Your task to perform on an android device: open app "AliExpress" (install if not already installed) Image 0: 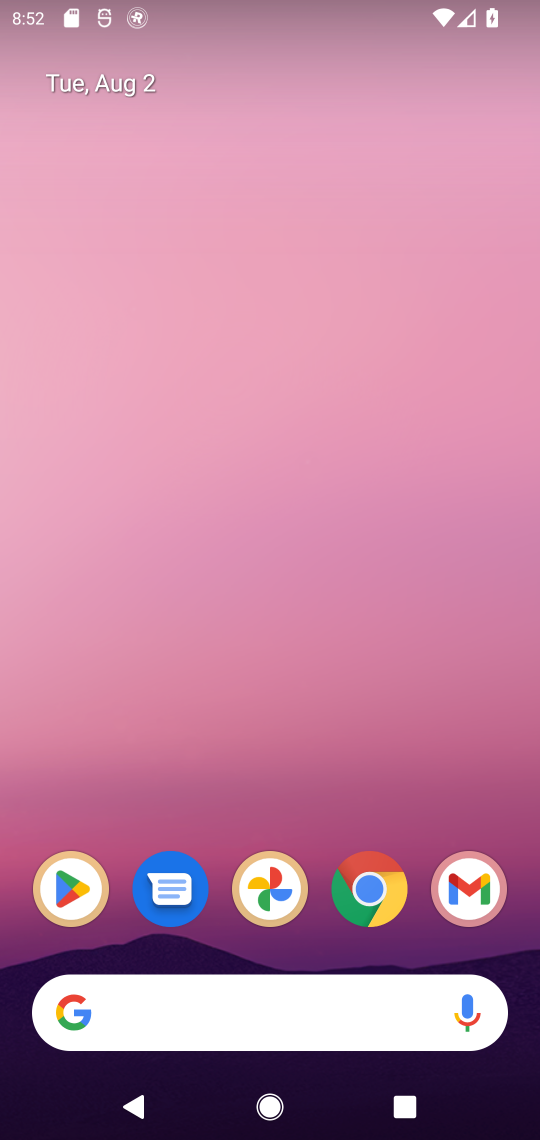
Step 0: press home button
Your task to perform on an android device: open app "AliExpress" (install if not already installed) Image 1: 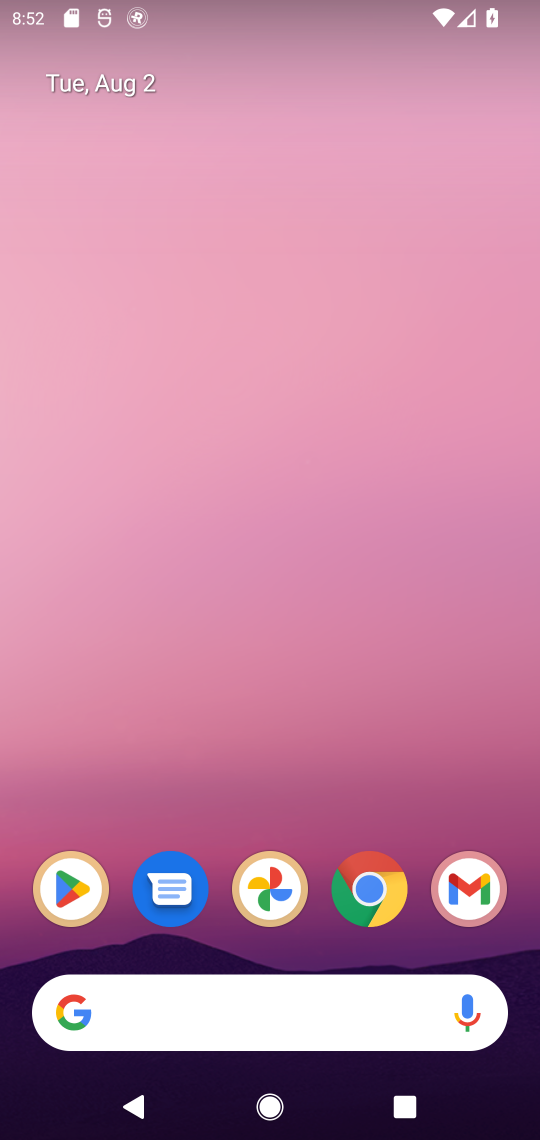
Step 1: click (84, 864)
Your task to perform on an android device: open app "AliExpress" (install if not already installed) Image 2: 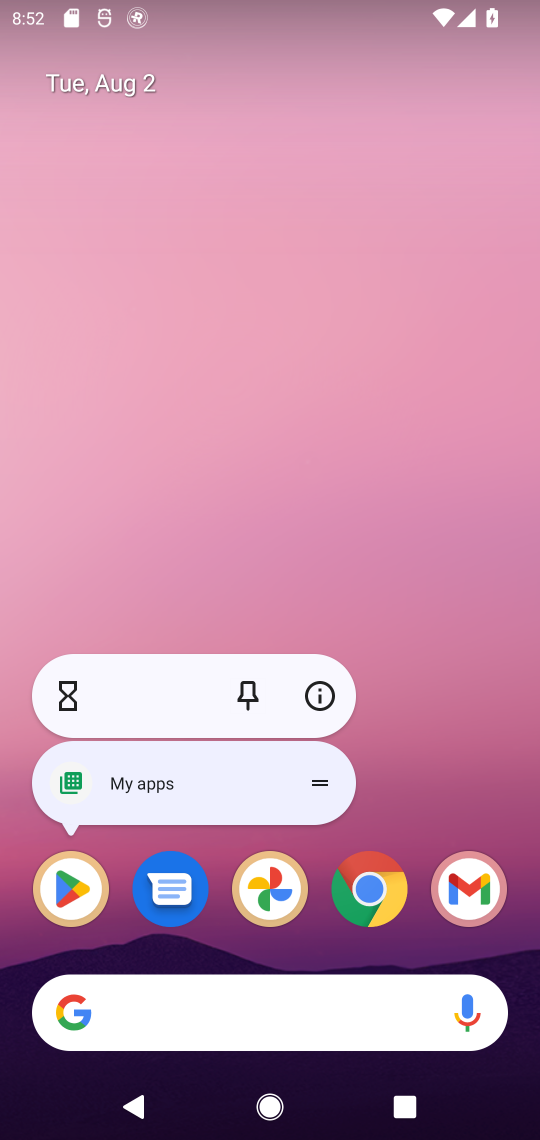
Step 2: click (71, 883)
Your task to perform on an android device: open app "AliExpress" (install if not already installed) Image 3: 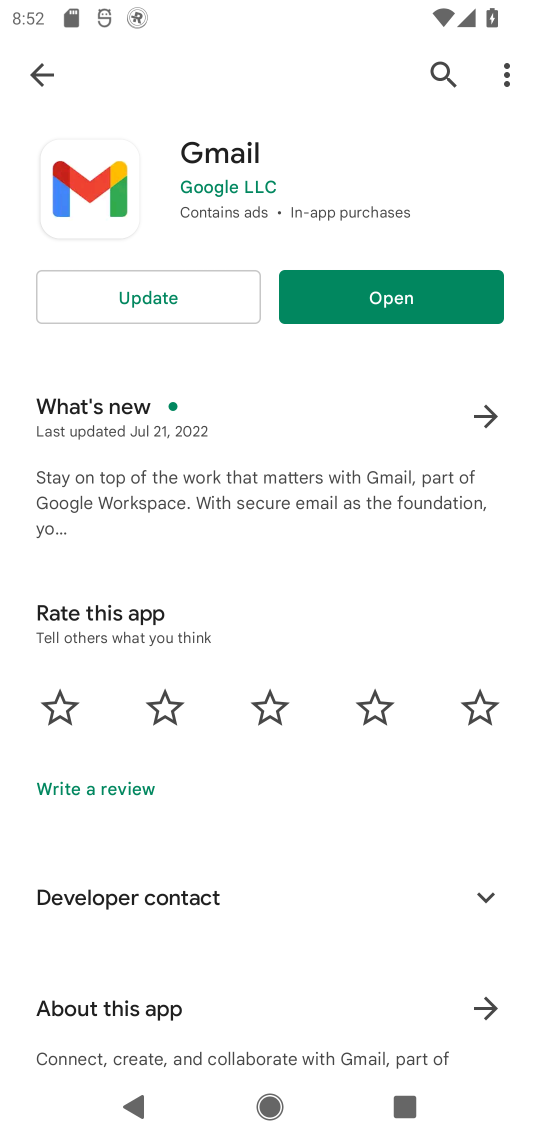
Step 3: click (427, 75)
Your task to perform on an android device: open app "AliExpress" (install if not already installed) Image 4: 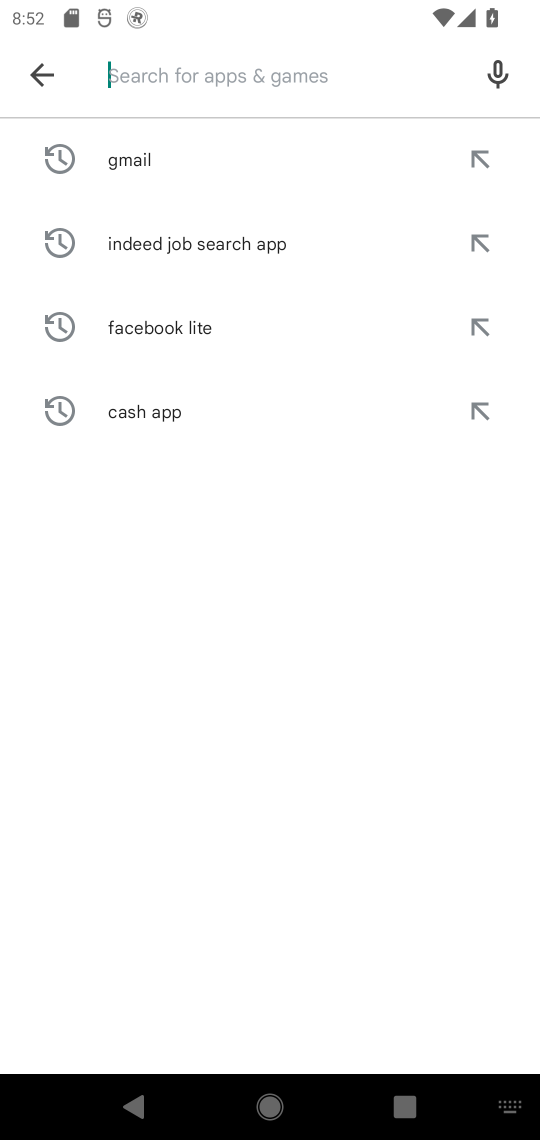
Step 4: type "AliExpress"
Your task to perform on an android device: open app "AliExpress" (install if not already installed) Image 5: 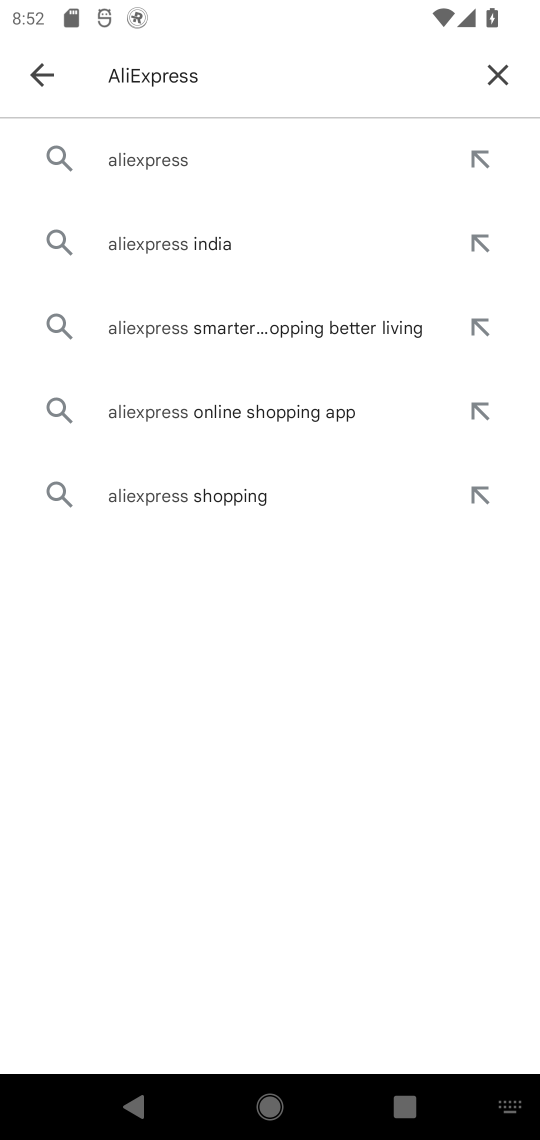
Step 5: click (133, 166)
Your task to perform on an android device: open app "AliExpress" (install if not already installed) Image 6: 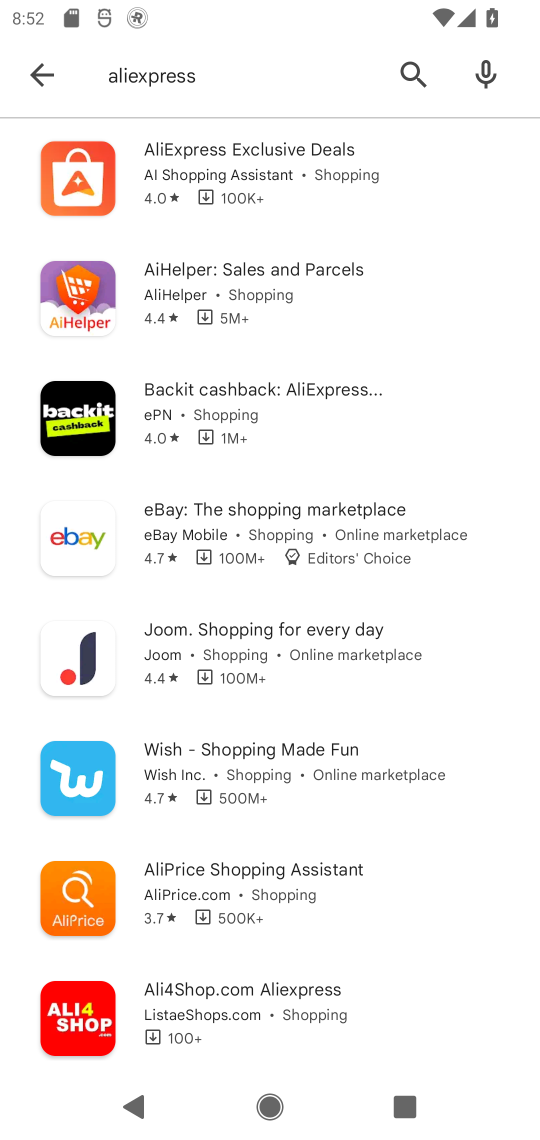
Step 6: click (244, 164)
Your task to perform on an android device: open app "AliExpress" (install if not already installed) Image 7: 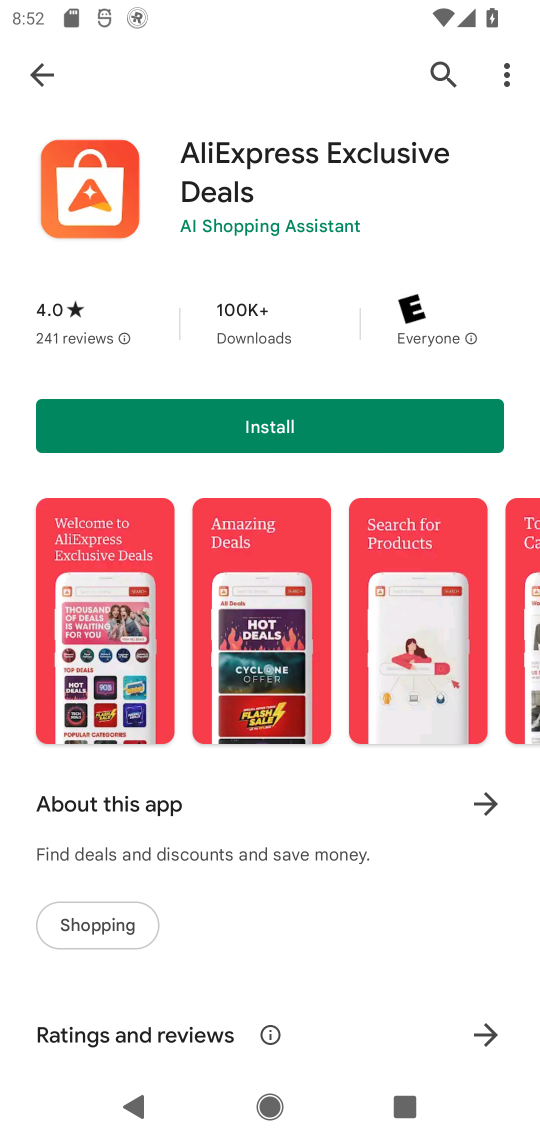
Step 7: click (285, 428)
Your task to perform on an android device: open app "AliExpress" (install if not already installed) Image 8: 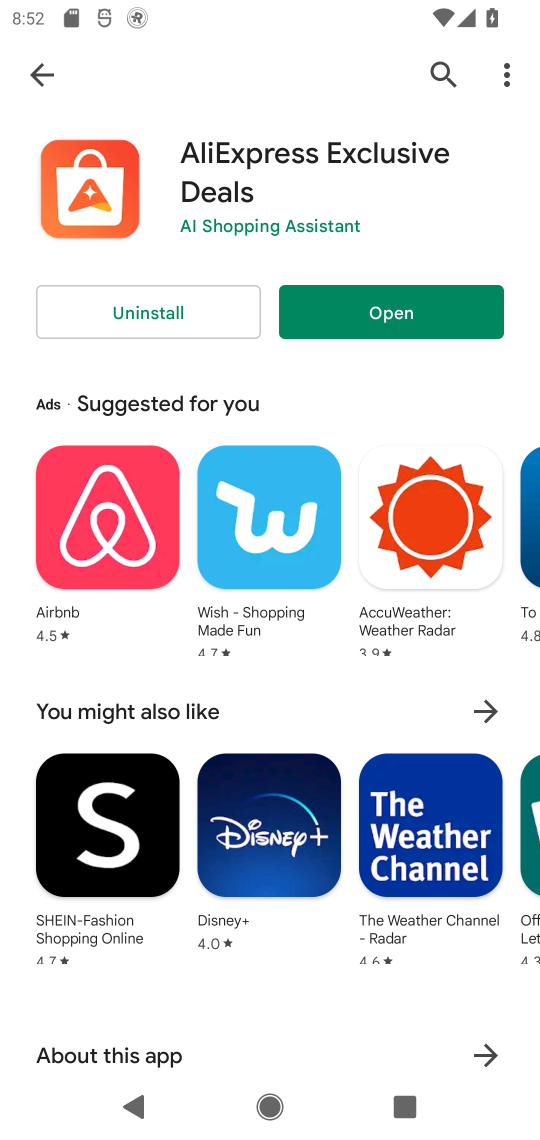
Step 8: click (412, 315)
Your task to perform on an android device: open app "AliExpress" (install if not already installed) Image 9: 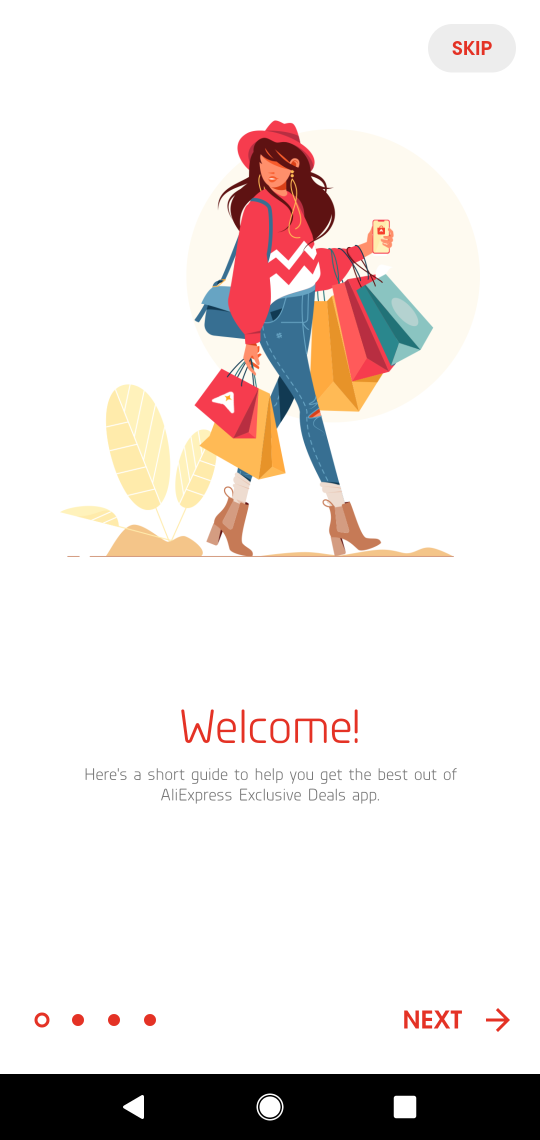
Step 9: task complete